Your task to perform on an android device: Go to calendar. Show me events next week Image 0: 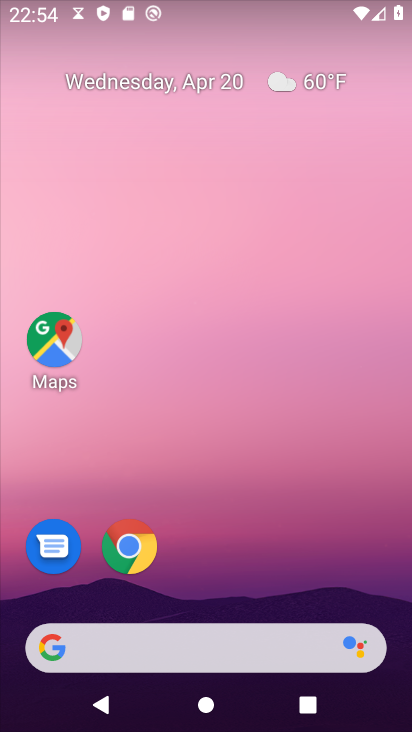
Step 0: drag from (251, 183) to (246, 70)
Your task to perform on an android device: Go to calendar. Show me events next week Image 1: 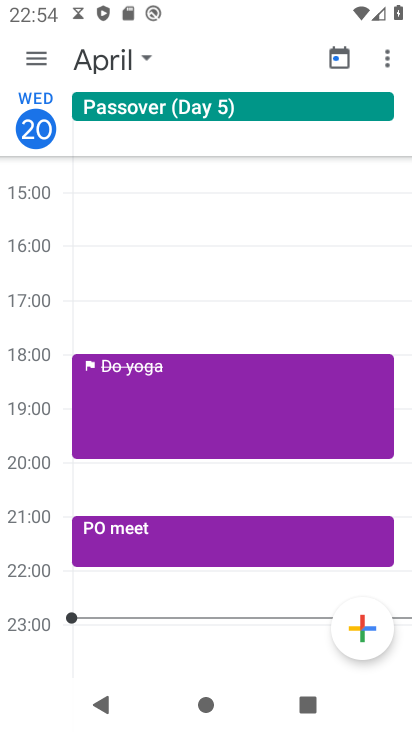
Step 1: click (30, 52)
Your task to perform on an android device: Go to calendar. Show me events next week Image 2: 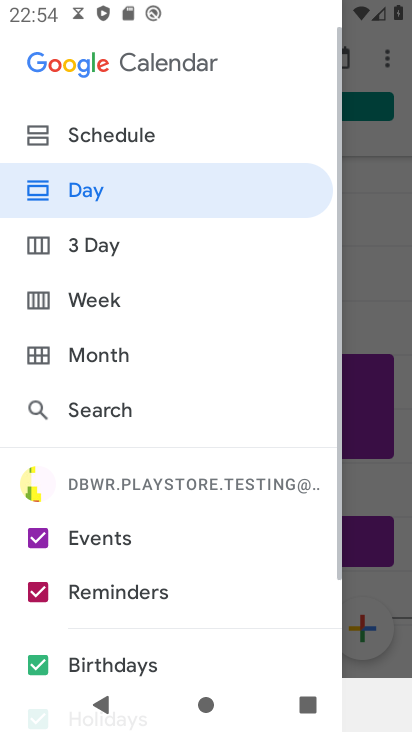
Step 2: click (111, 297)
Your task to perform on an android device: Go to calendar. Show me events next week Image 3: 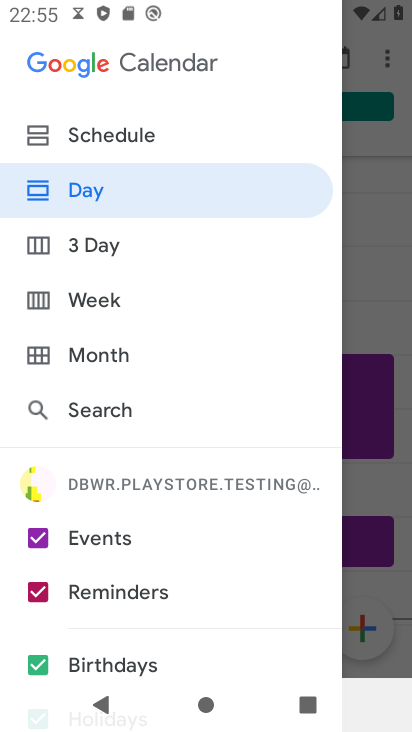
Step 3: click (120, 303)
Your task to perform on an android device: Go to calendar. Show me events next week Image 4: 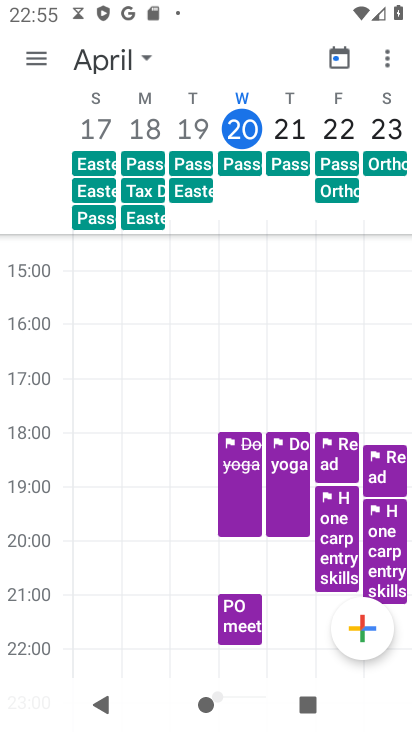
Step 4: click (149, 59)
Your task to perform on an android device: Go to calendar. Show me events next week Image 5: 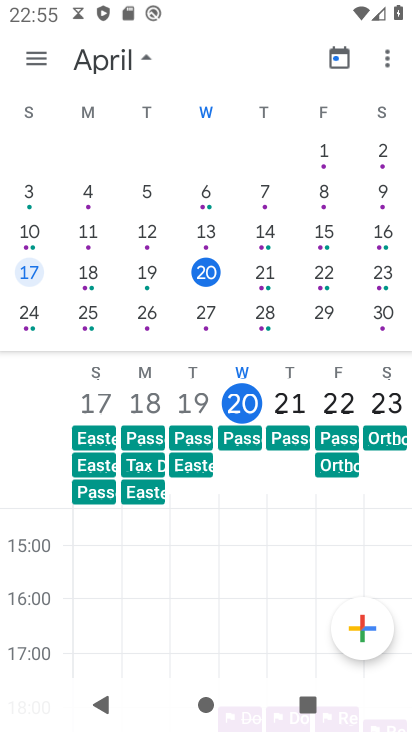
Step 5: click (42, 311)
Your task to perform on an android device: Go to calendar. Show me events next week Image 6: 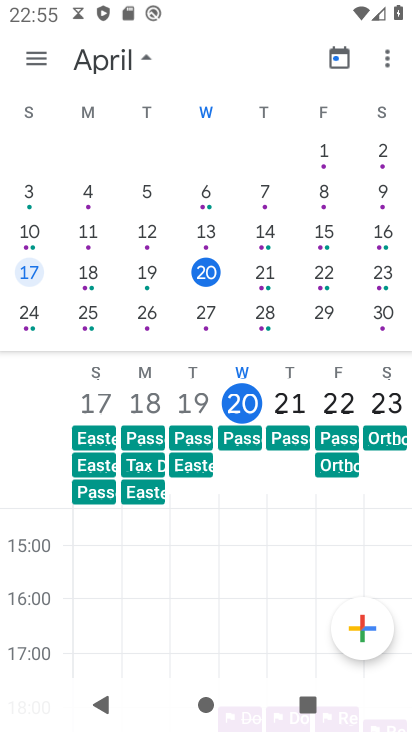
Step 6: task complete